Your task to perform on an android device: Go to CNN.com Image 0: 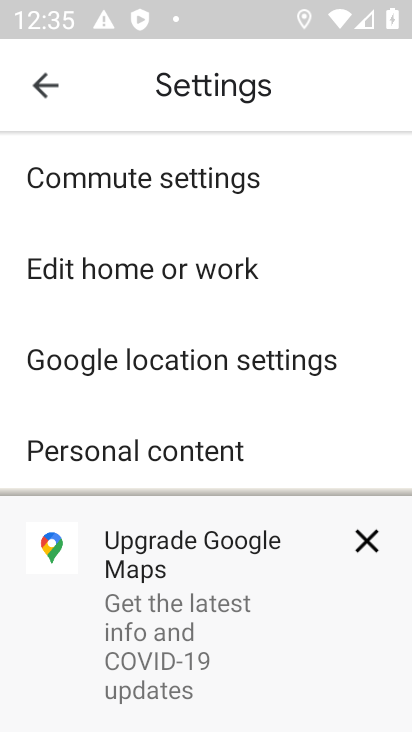
Step 0: press home button
Your task to perform on an android device: Go to CNN.com Image 1: 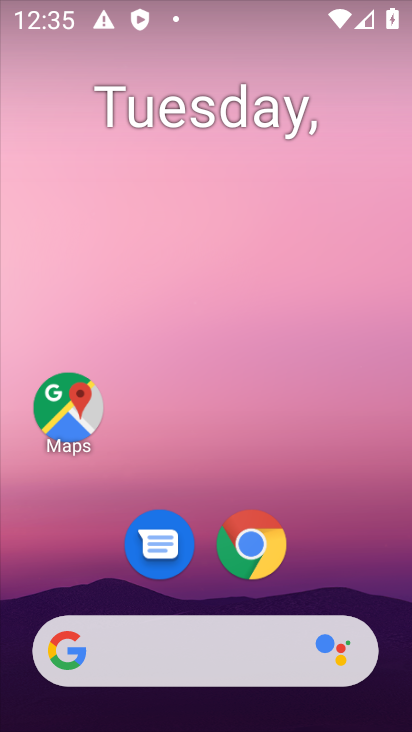
Step 1: click (250, 544)
Your task to perform on an android device: Go to CNN.com Image 2: 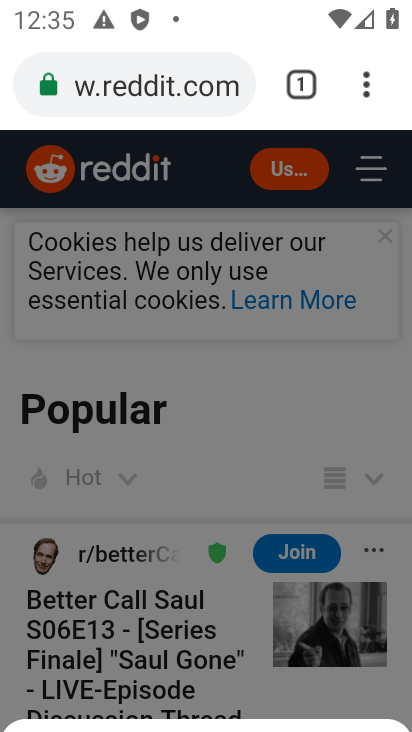
Step 2: click (212, 92)
Your task to perform on an android device: Go to CNN.com Image 3: 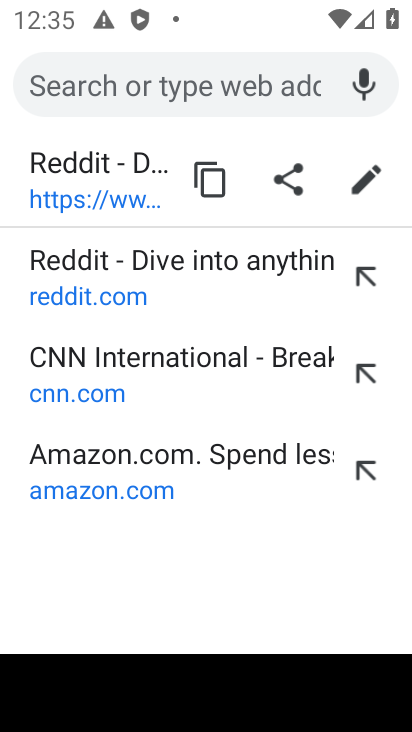
Step 3: click (97, 391)
Your task to perform on an android device: Go to CNN.com Image 4: 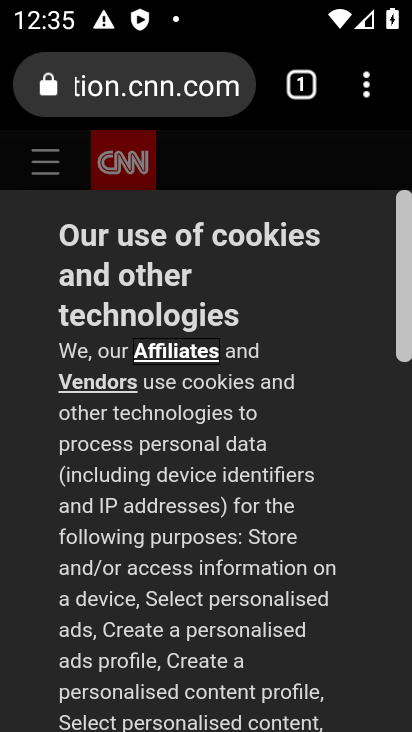
Step 4: task complete